Your task to perform on an android device: turn off picture-in-picture Image 0: 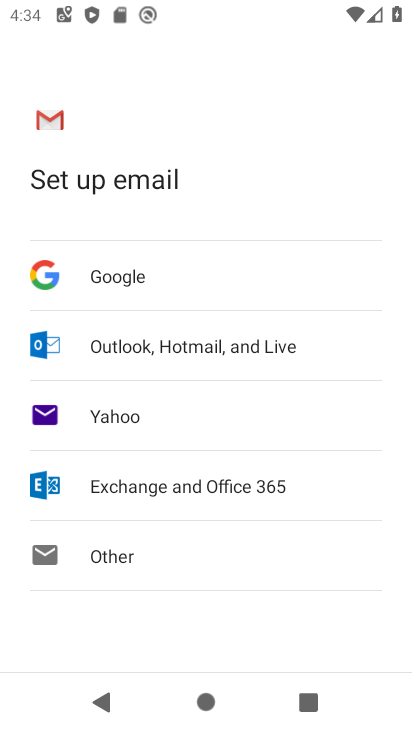
Step 0: press home button
Your task to perform on an android device: turn off picture-in-picture Image 1: 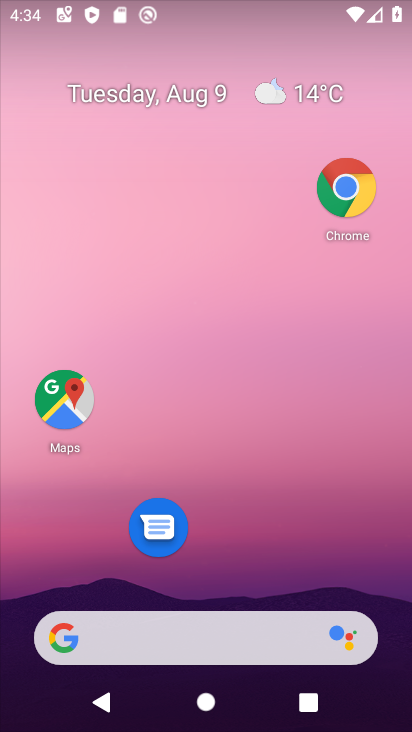
Step 1: click (347, 190)
Your task to perform on an android device: turn off picture-in-picture Image 2: 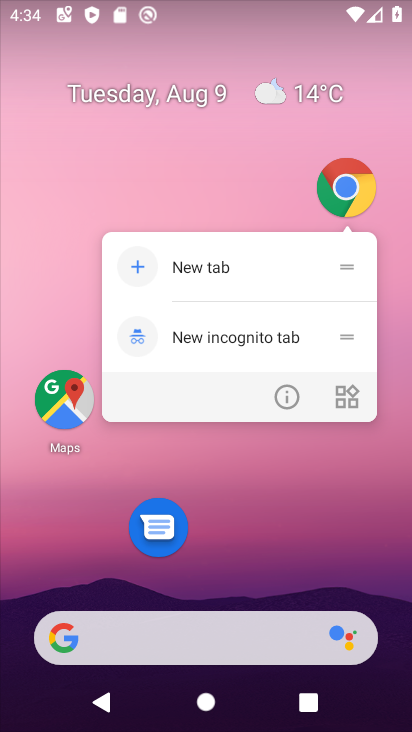
Step 2: click (297, 405)
Your task to perform on an android device: turn off picture-in-picture Image 3: 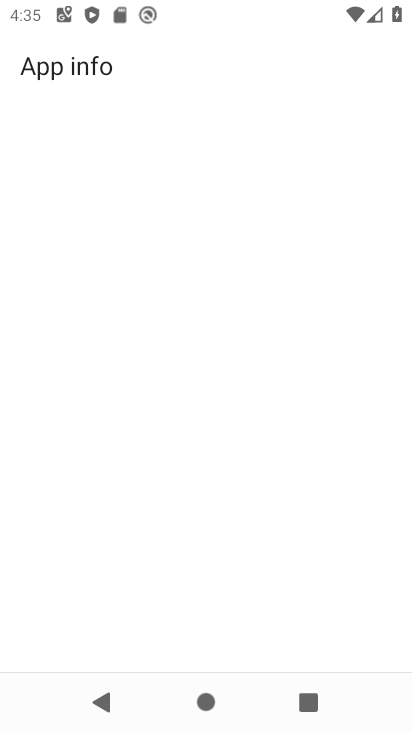
Step 3: click (297, 405)
Your task to perform on an android device: turn off picture-in-picture Image 4: 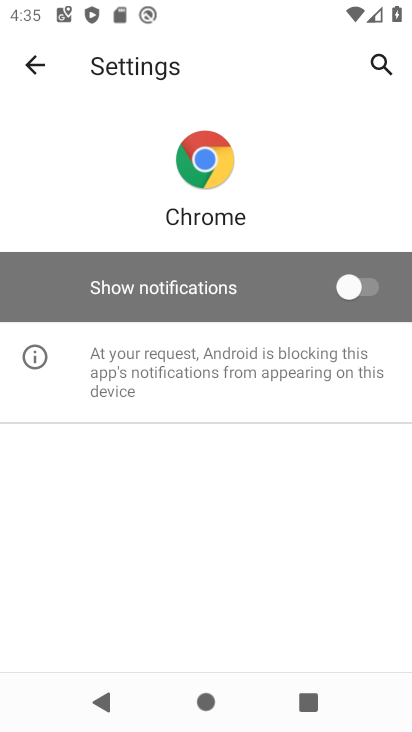
Step 4: click (49, 68)
Your task to perform on an android device: turn off picture-in-picture Image 5: 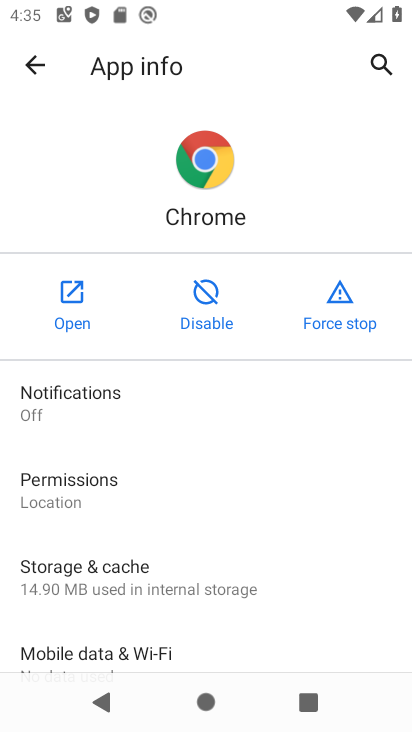
Step 5: drag from (212, 629) to (188, 202)
Your task to perform on an android device: turn off picture-in-picture Image 6: 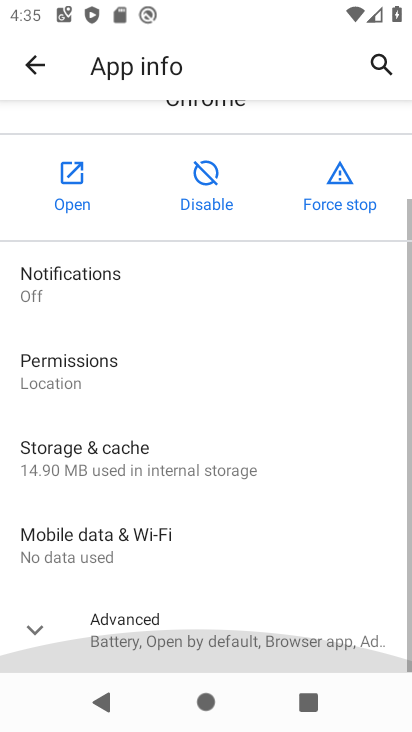
Step 6: click (188, 202)
Your task to perform on an android device: turn off picture-in-picture Image 7: 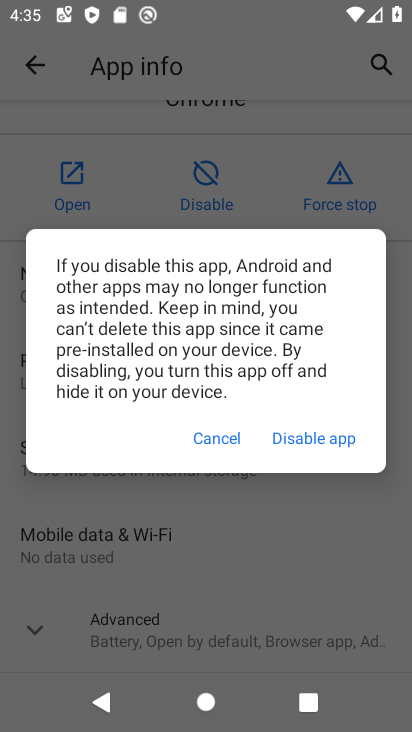
Step 7: click (218, 438)
Your task to perform on an android device: turn off picture-in-picture Image 8: 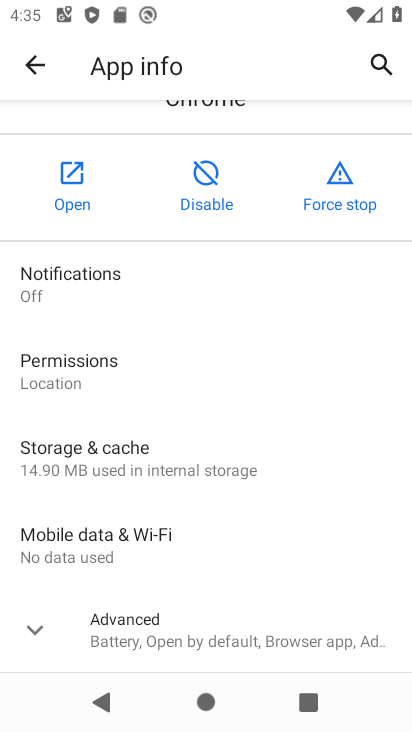
Step 8: click (174, 640)
Your task to perform on an android device: turn off picture-in-picture Image 9: 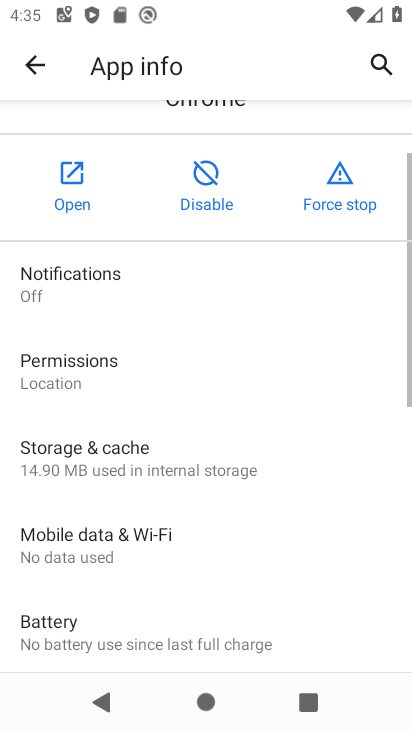
Step 9: drag from (174, 640) to (172, 232)
Your task to perform on an android device: turn off picture-in-picture Image 10: 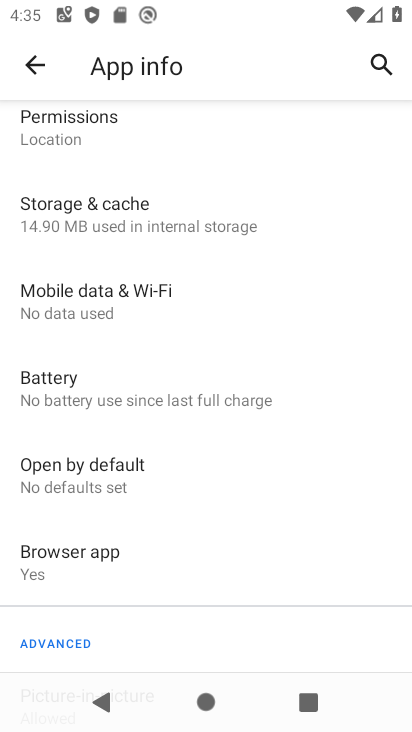
Step 10: drag from (147, 617) to (133, 270)
Your task to perform on an android device: turn off picture-in-picture Image 11: 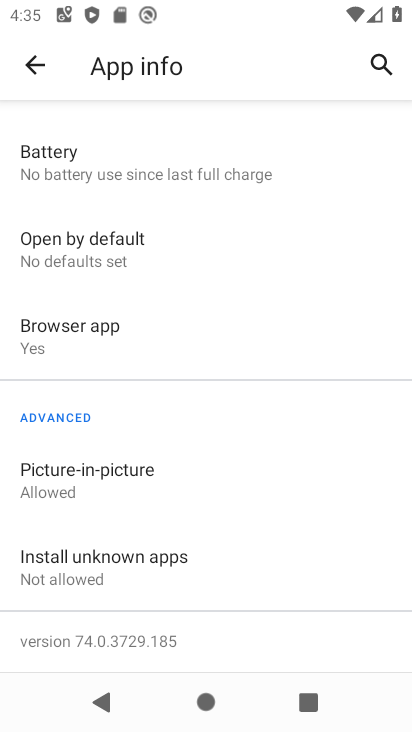
Step 11: click (130, 464)
Your task to perform on an android device: turn off picture-in-picture Image 12: 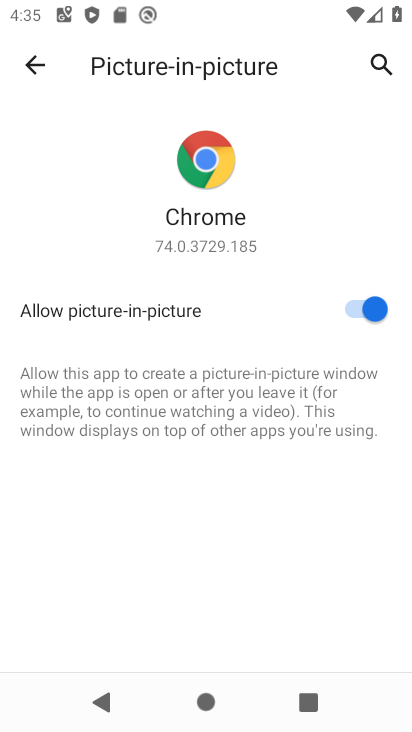
Step 12: click (373, 308)
Your task to perform on an android device: turn off picture-in-picture Image 13: 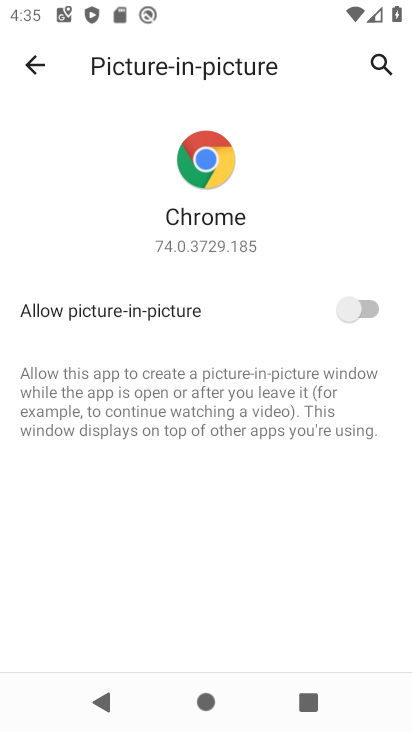
Step 13: task complete